Your task to perform on an android device: Do I have any events tomorrow? Image 0: 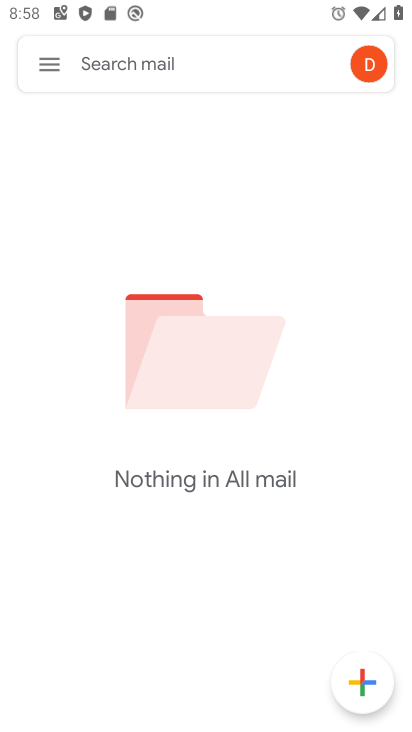
Step 0: press home button
Your task to perform on an android device: Do I have any events tomorrow? Image 1: 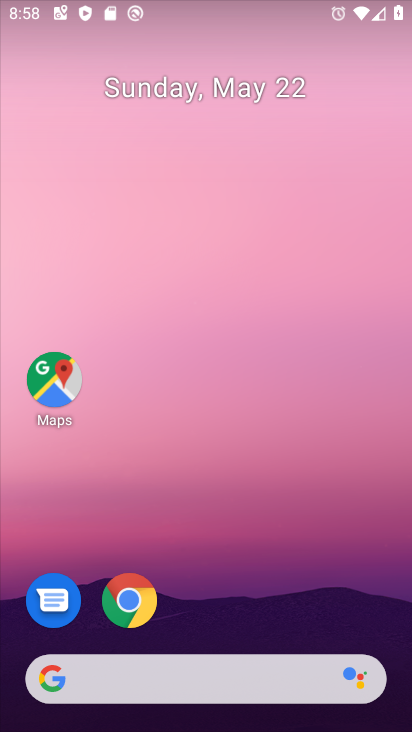
Step 1: drag from (250, 668) to (311, 134)
Your task to perform on an android device: Do I have any events tomorrow? Image 2: 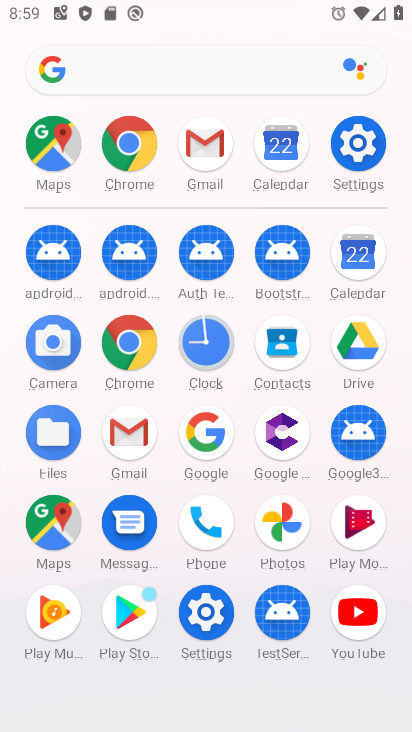
Step 2: click (367, 273)
Your task to perform on an android device: Do I have any events tomorrow? Image 3: 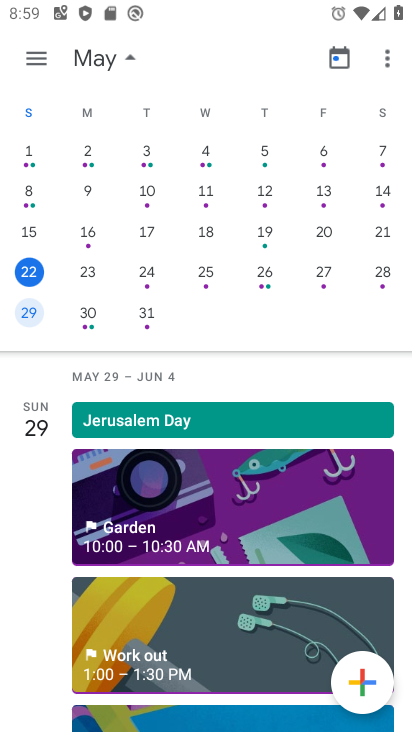
Step 3: click (83, 280)
Your task to perform on an android device: Do I have any events tomorrow? Image 4: 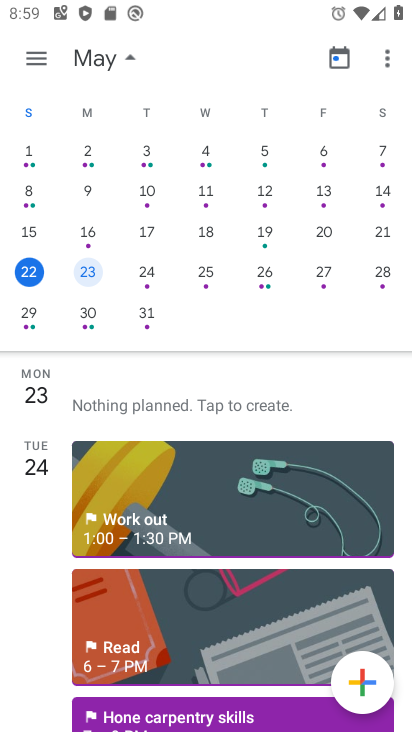
Step 4: task complete